Your task to perform on an android device: empty trash in the gmail app Image 0: 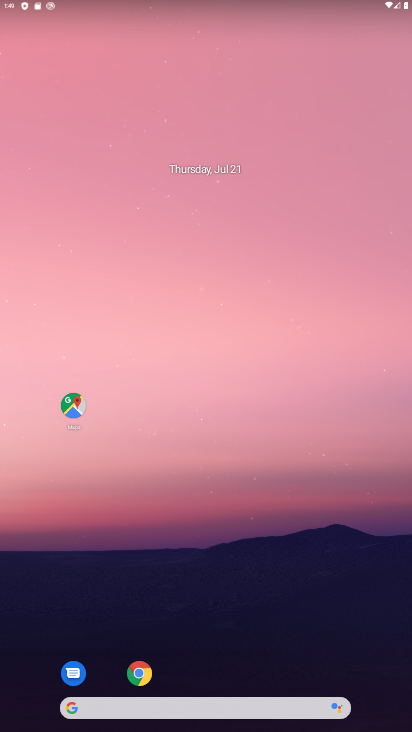
Step 0: click (195, 646)
Your task to perform on an android device: empty trash in the gmail app Image 1: 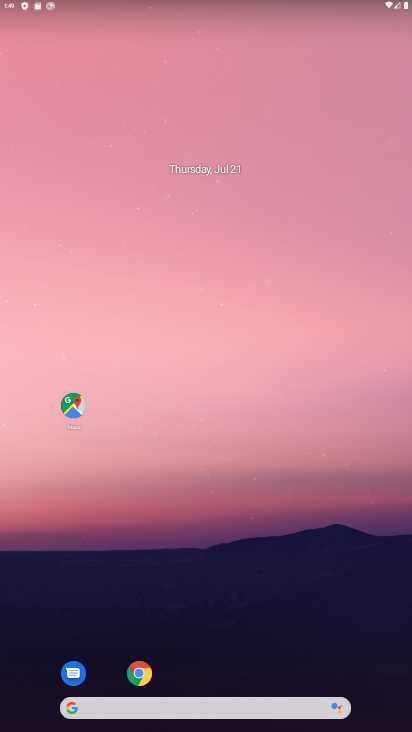
Step 1: drag from (185, 544) to (194, 19)
Your task to perform on an android device: empty trash in the gmail app Image 2: 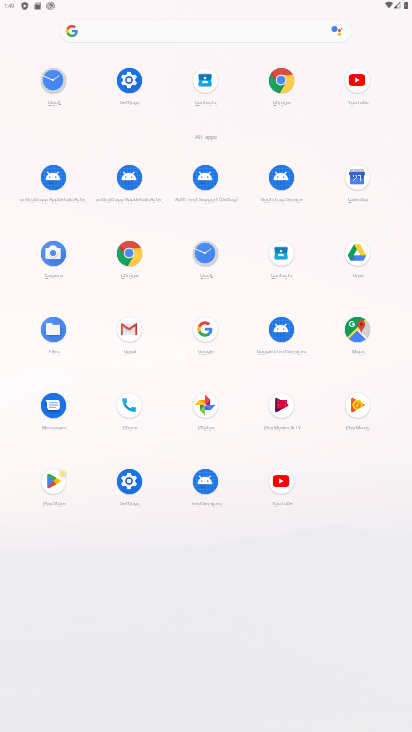
Step 2: click (127, 343)
Your task to perform on an android device: empty trash in the gmail app Image 3: 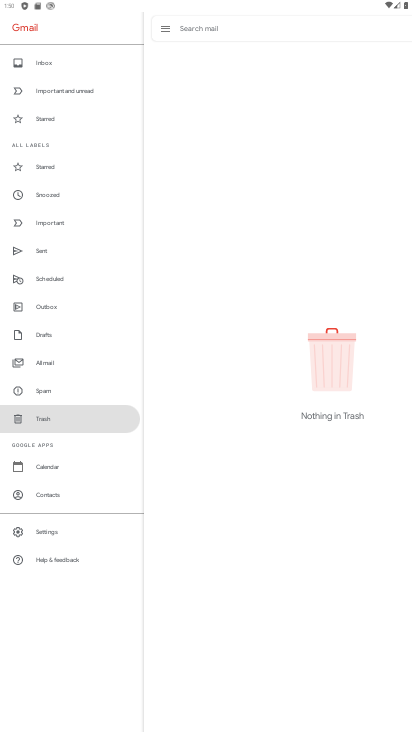
Step 3: task complete